Your task to perform on an android device: check storage Image 0: 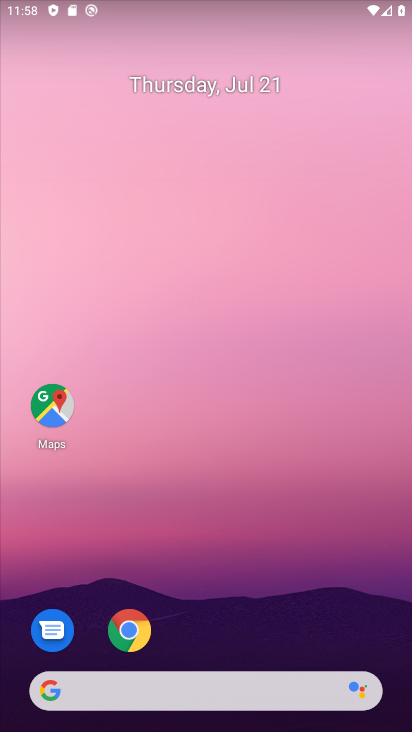
Step 0: drag from (302, 645) to (273, 406)
Your task to perform on an android device: check storage Image 1: 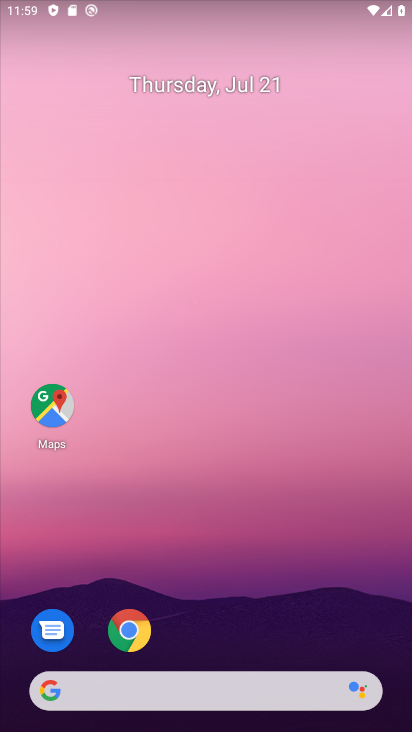
Step 1: drag from (386, 612) to (377, 104)
Your task to perform on an android device: check storage Image 2: 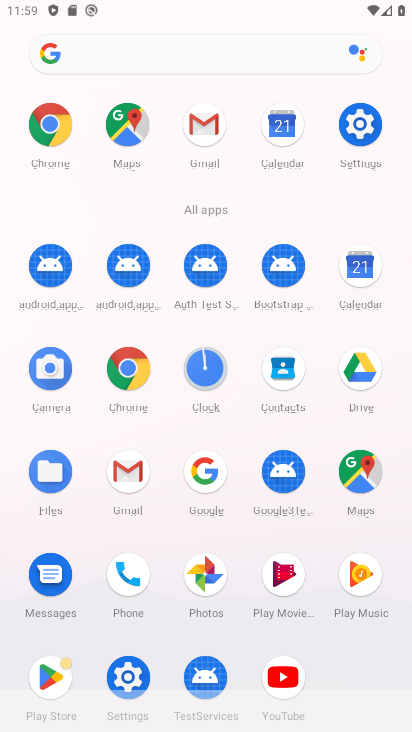
Step 2: click (140, 664)
Your task to perform on an android device: check storage Image 3: 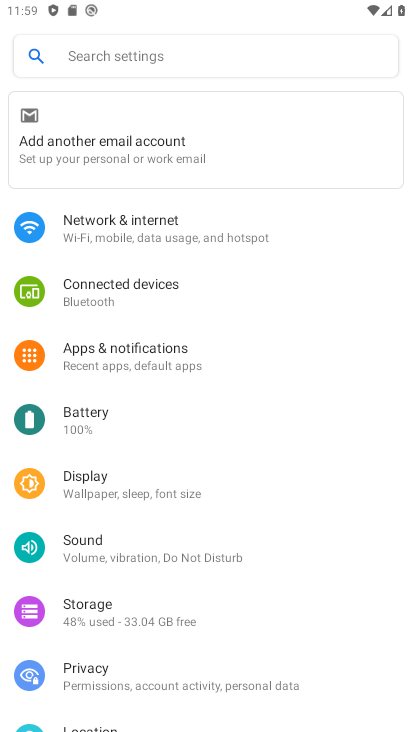
Step 3: click (55, 634)
Your task to perform on an android device: check storage Image 4: 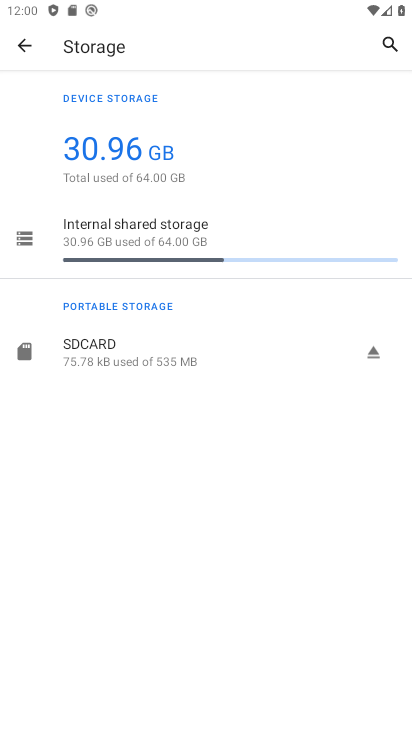
Step 4: task complete